Your task to perform on an android device: Open sound settings Image 0: 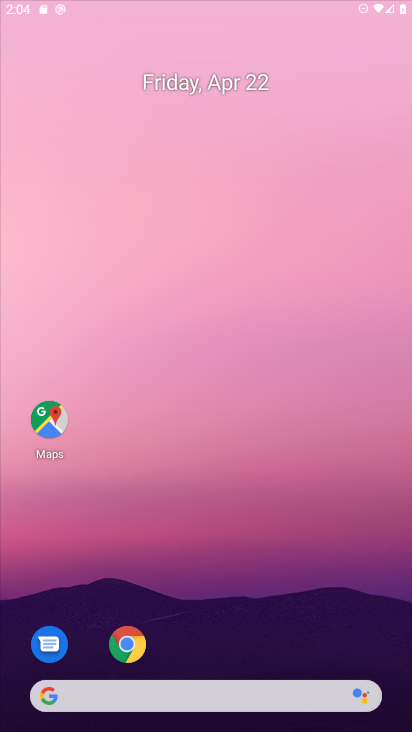
Step 0: click (331, 171)
Your task to perform on an android device: Open sound settings Image 1: 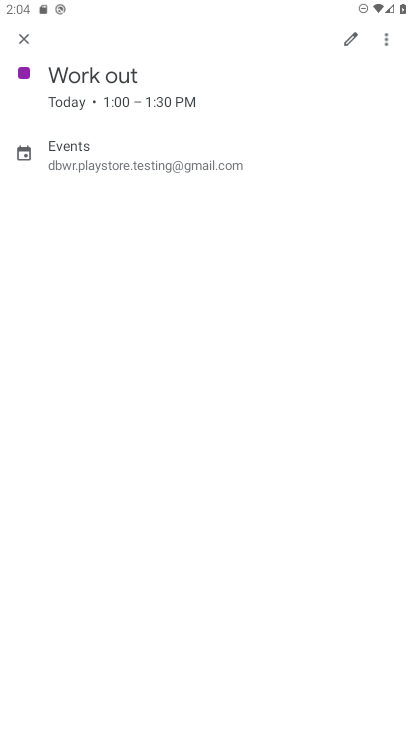
Step 1: press home button
Your task to perform on an android device: Open sound settings Image 2: 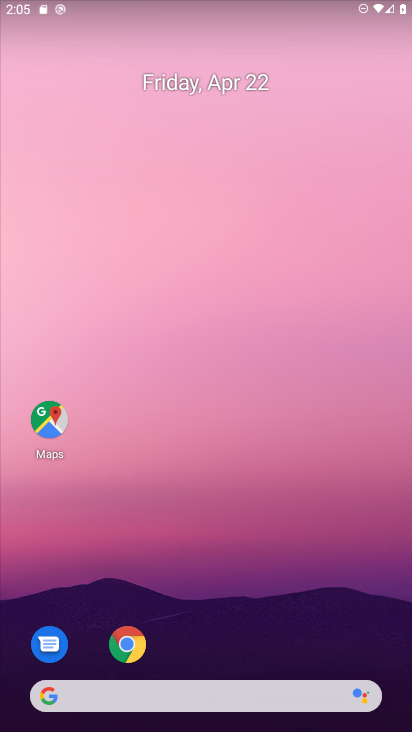
Step 2: drag from (145, 556) to (249, 108)
Your task to perform on an android device: Open sound settings Image 3: 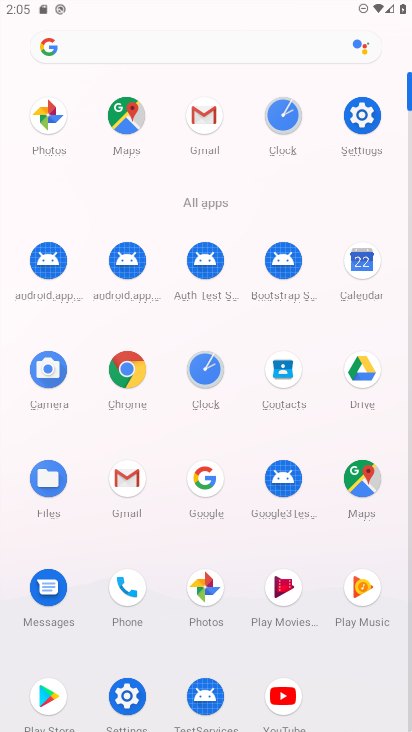
Step 3: click (361, 121)
Your task to perform on an android device: Open sound settings Image 4: 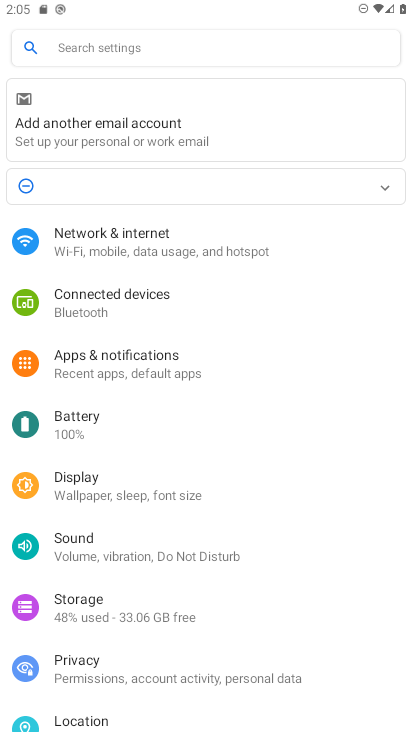
Step 4: click (151, 551)
Your task to perform on an android device: Open sound settings Image 5: 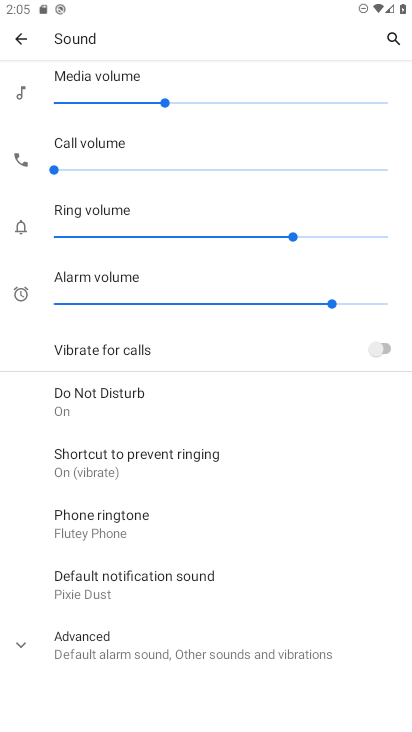
Step 5: task complete